Your task to perform on an android device: open a bookmark in the chrome app Image 0: 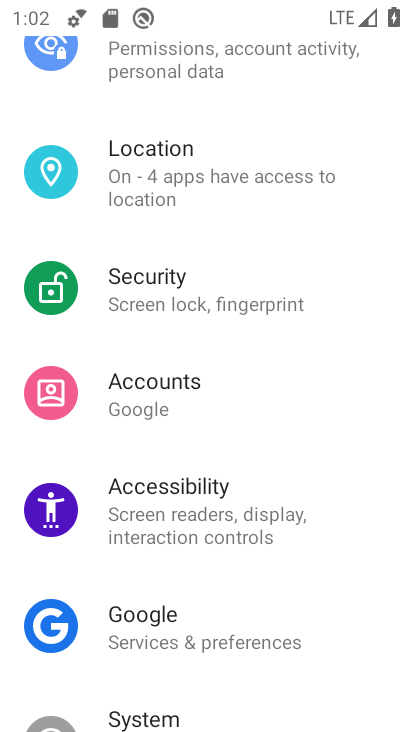
Step 0: press home button
Your task to perform on an android device: open a bookmark in the chrome app Image 1: 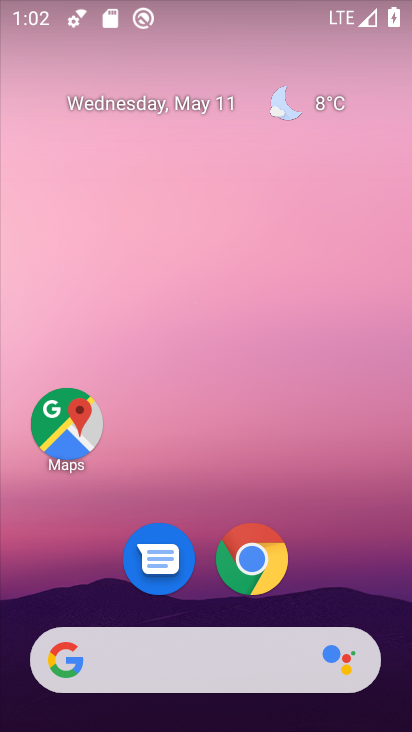
Step 1: click (246, 565)
Your task to perform on an android device: open a bookmark in the chrome app Image 2: 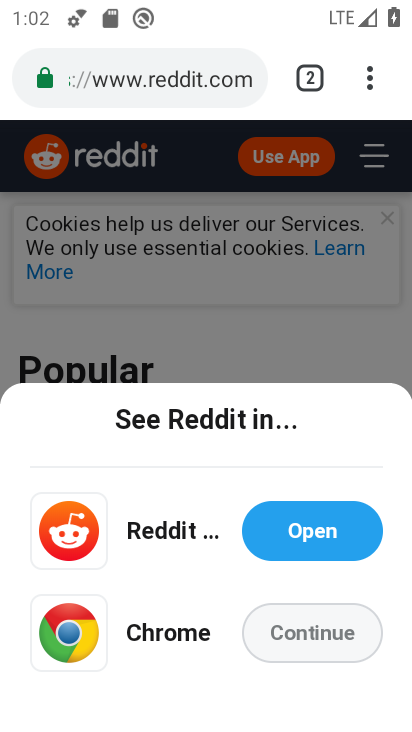
Step 2: click (371, 88)
Your task to perform on an android device: open a bookmark in the chrome app Image 3: 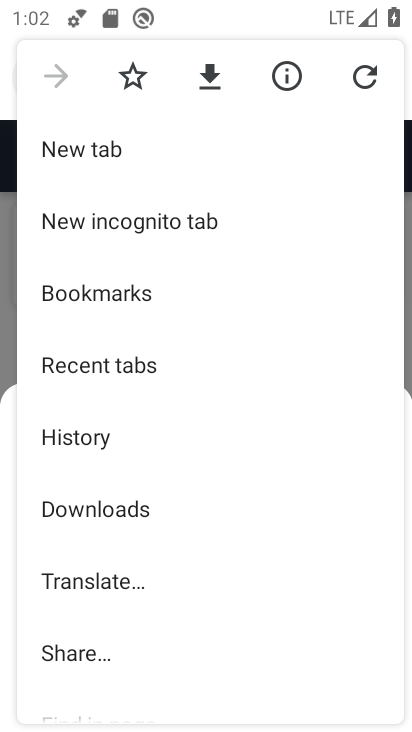
Step 3: click (98, 297)
Your task to perform on an android device: open a bookmark in the chrome app Image 4: 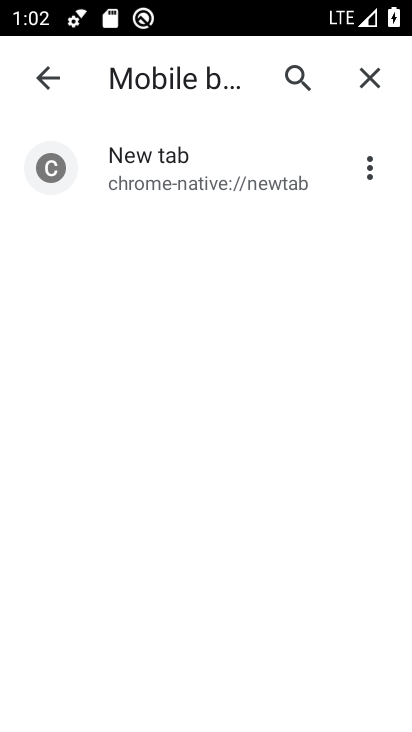
Step 4: click (139, 172)
Your task to perform on an android device: open a bookmark in the chrome app Image 5: 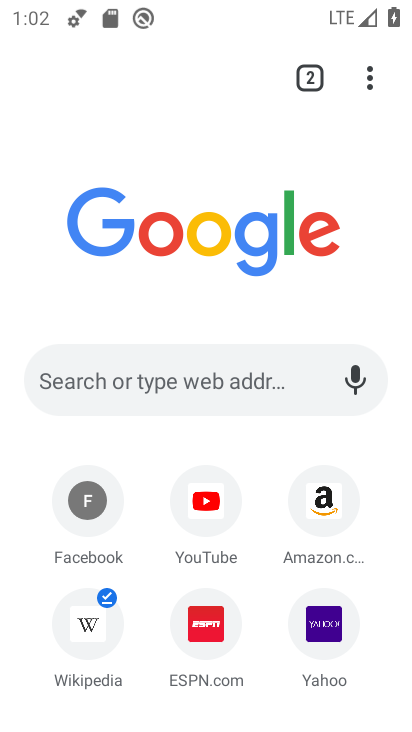
Step 5: task complete